Your task to perform on an android device: Open Google Maps Image 0: 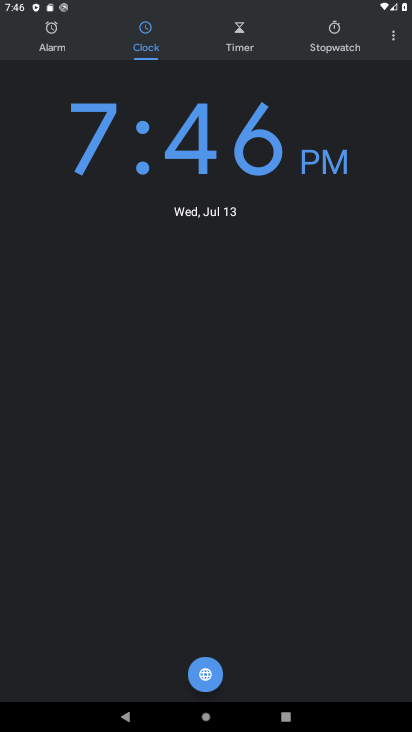
Step 0: press back button
Your task to perform on an android device: Open Google Maps Image 1: 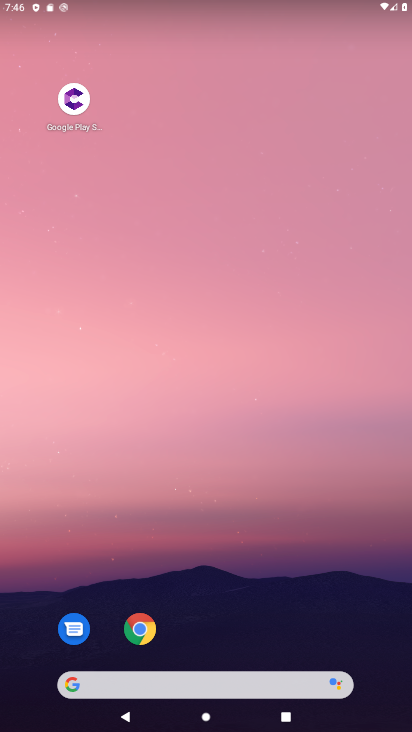
Step 1: drag from (100, 378) to (357, 388)
Your task to perform on an android device: Open Google Maps Image 2: 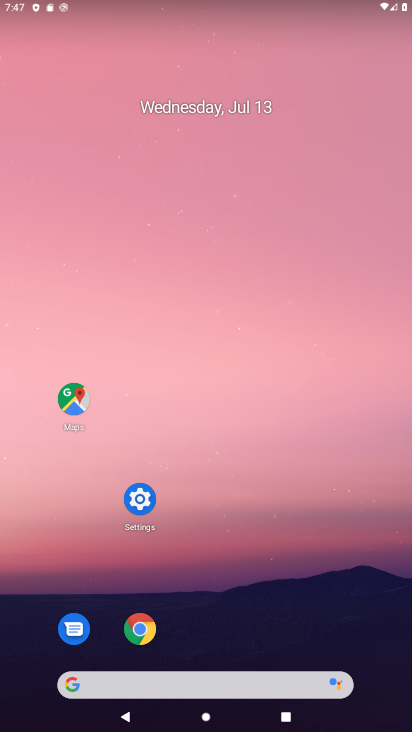
Step 2: click (73, 384)
Your task to perform on an android device: Open Google Maps Image 3: 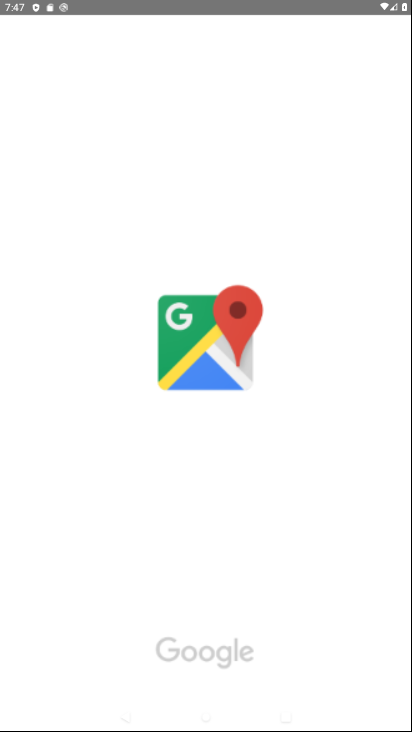
Step 3: task complete